Your task to perform on an android device: Open Android settings Image 0: 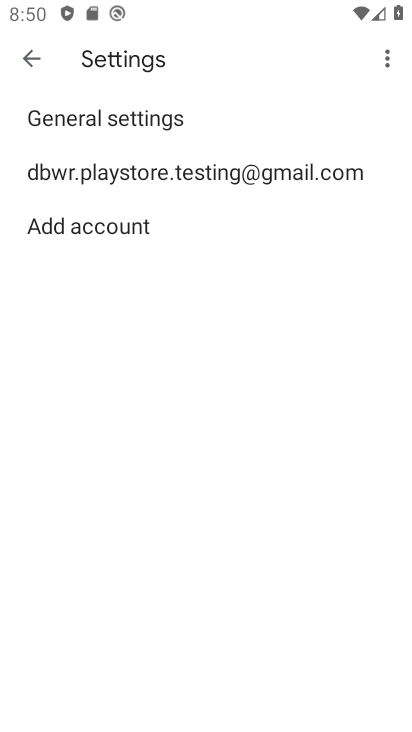
Step 0: press home button
Your task to perform on an android device: Open Android settings Image 1: 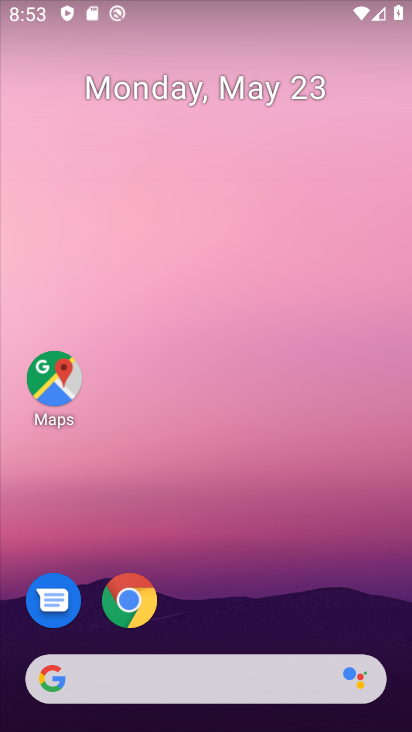
Step 1: drag from (369, 688) to (300, 8)
Your task to perform on an android device: Open Android settings Image 2: 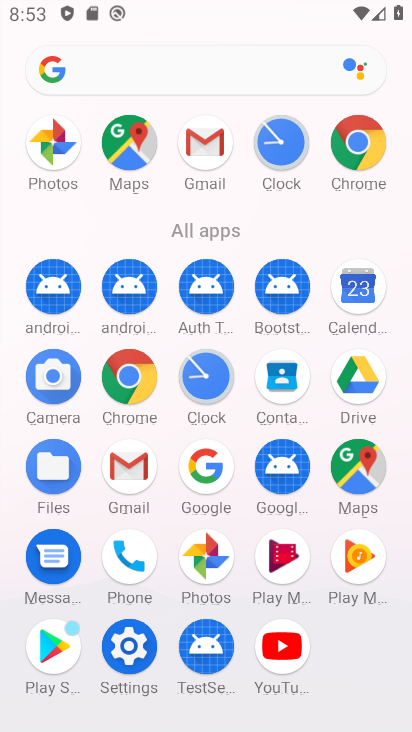
Step 2: click (125, 655)
Your task to perform on an android device: Open Android settings Image 3: 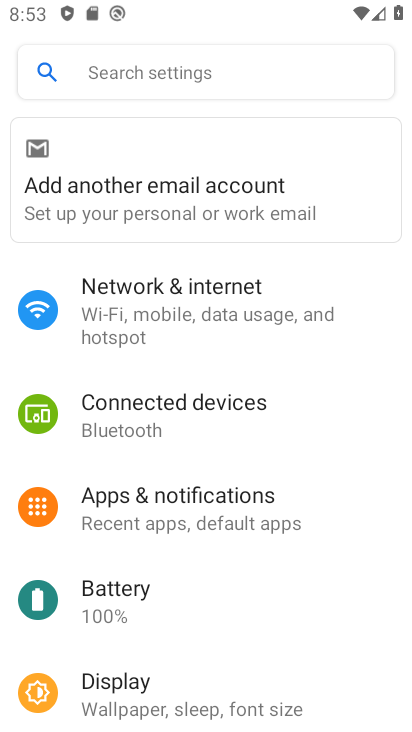
Step 3: drag from (176, 665) to (210, 35)
Your task to perform on an android device: Open Android settings Image 4: 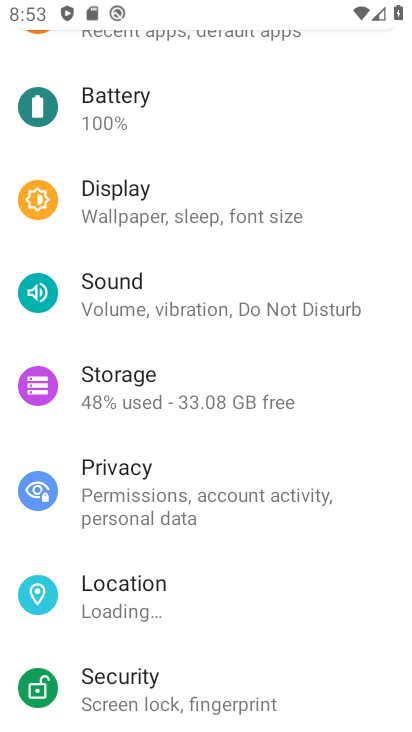
Step 4: drag from (145, 725) to (188, 299)
Your task to perform on an android device: Open Android settings Image 5: 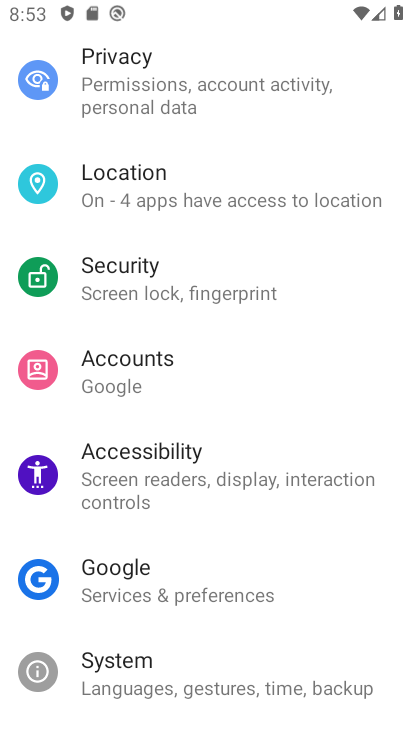
Step 5: click (290, 670)
Your task to perform on an android device: Open Android settings Image 6: 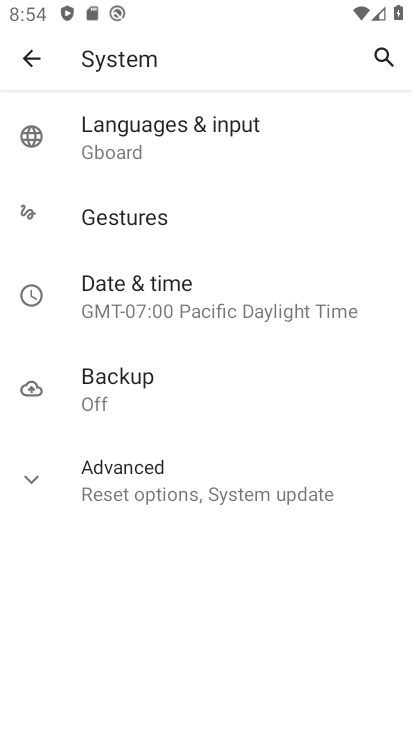
Step 6: press home button
Your task to perform on an android device: Open Android settings Image 7: 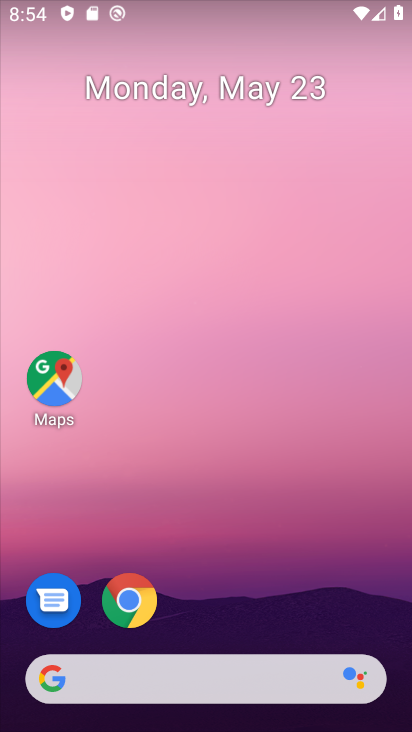
Step 7: drag from (209, 621) to (188, 5)
Your task to perform on an android device: Open Android settings Image 8: 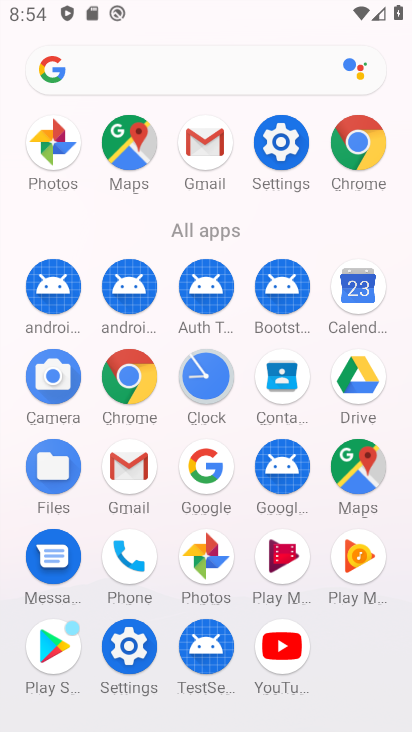
Step 8: click (137, 653)
Your task to perform on an android device: Open Android settings Image 9: 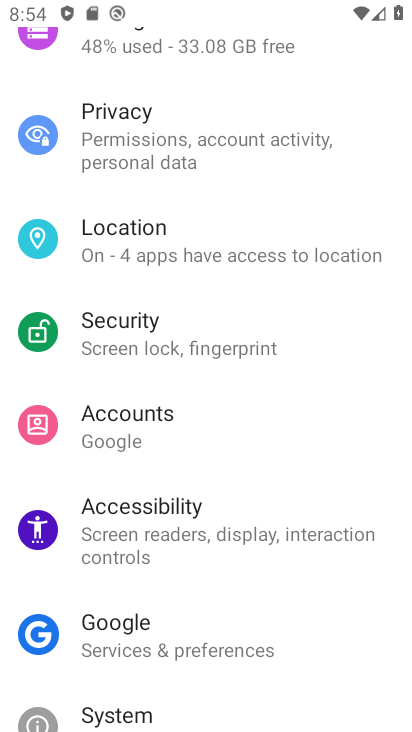
Step 9: click (102, 633)
Your task to perform on an android device: Open Android settings Image 10: 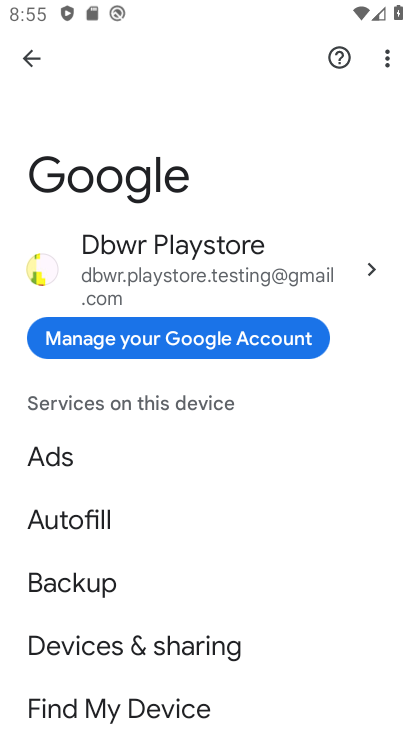
Step 10: press home button
Your task to perform on an android device: Open Android settings Image 11: 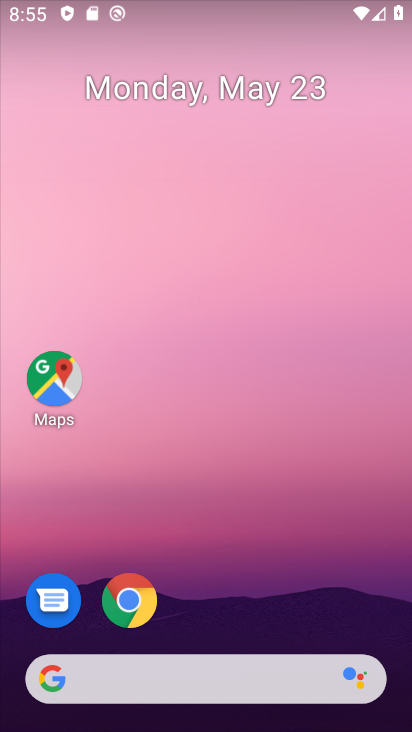
Step 11: drag from (279, 665) to (378, 0)
Your task to perform on an android device: Open Android settings Image 12: 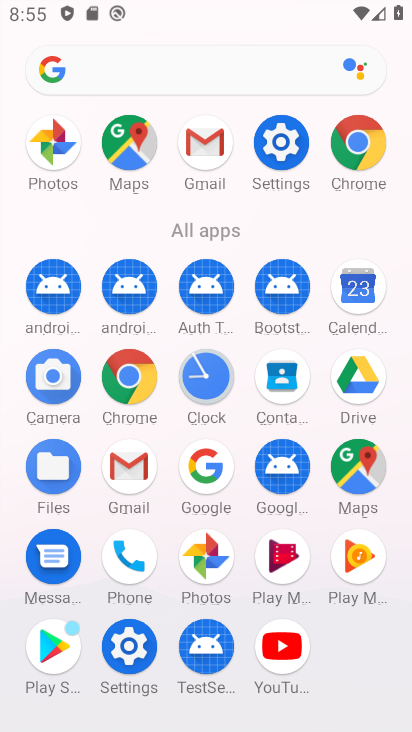
Step 12: click (275, 164)
Your task to perform on an android device: Open Android settings Image 13: 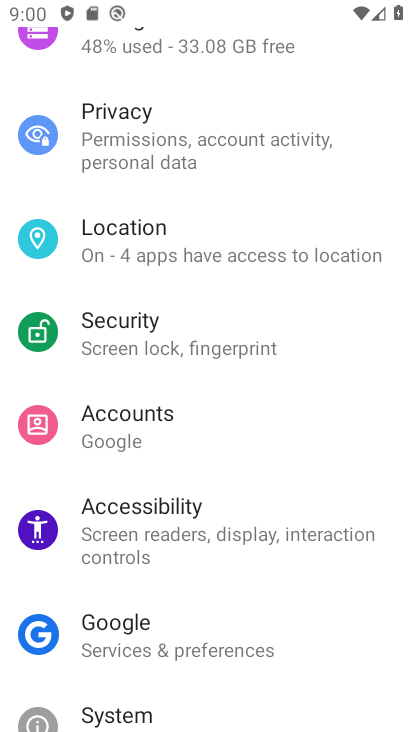
Step 13: press home button
Your task to perform on an android device: Open Android settings Image 14: 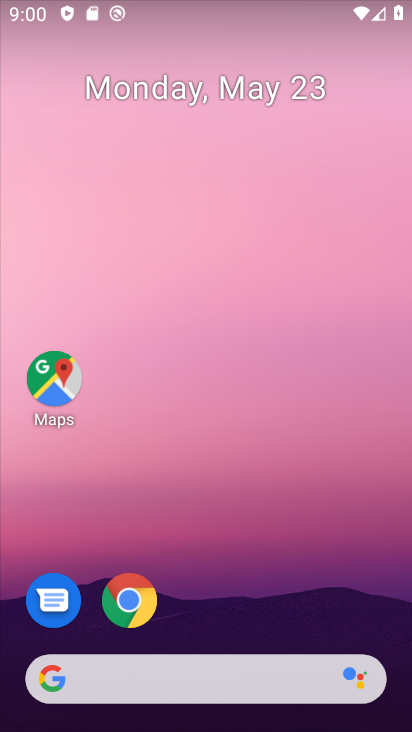
Step 14: drag from (365, 682) to (245, 0)
Your task to perform on an android device: Open Android settings Image 15: 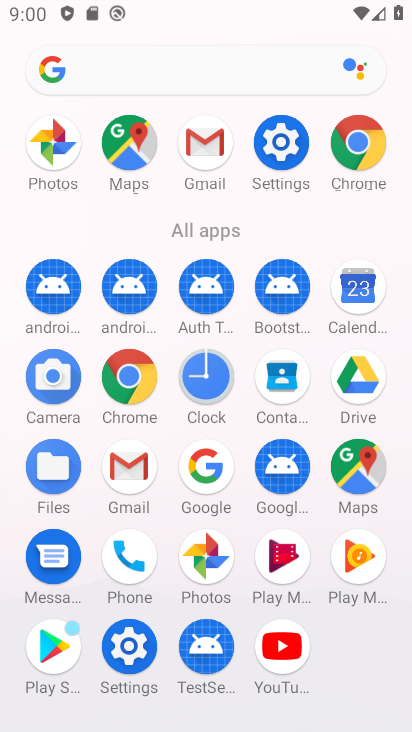
Step 15: click (294, 138)
Your task to perform on an android device: Open Android settings Image 16: 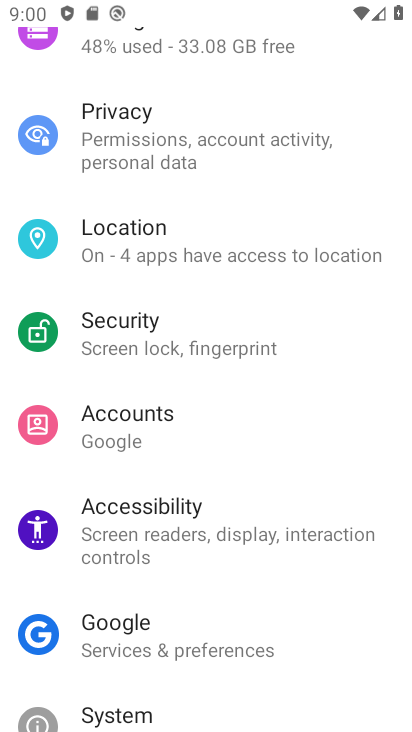
Step 16: drag from (220, 635) to (301, 188)
Your task to perform on an android device: Open Android settings Image 17: 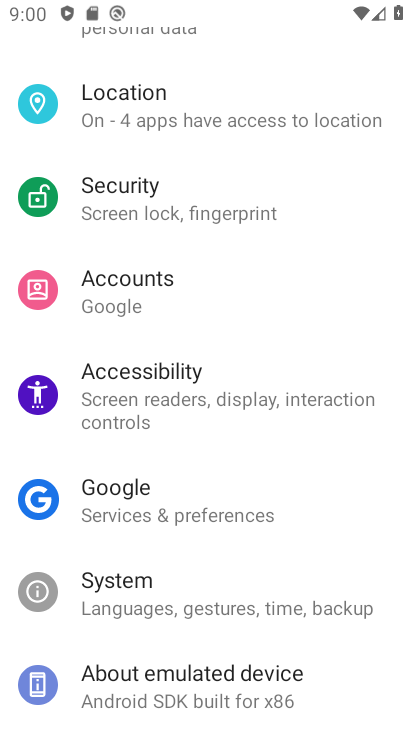
Step 17: drag from (221, 470) to (236, 324)
Your task to perform on an android device: Open Android settings Image 18: 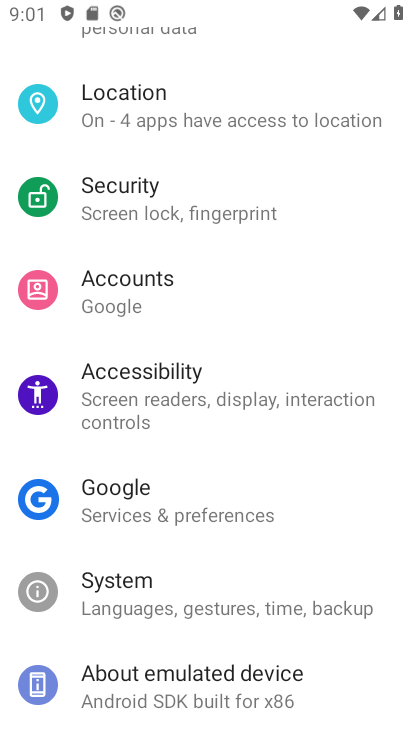
Step 18: drag from (239, 716) to (250, 465)
Your task to perform on an android device: Open Android settings Image 19: 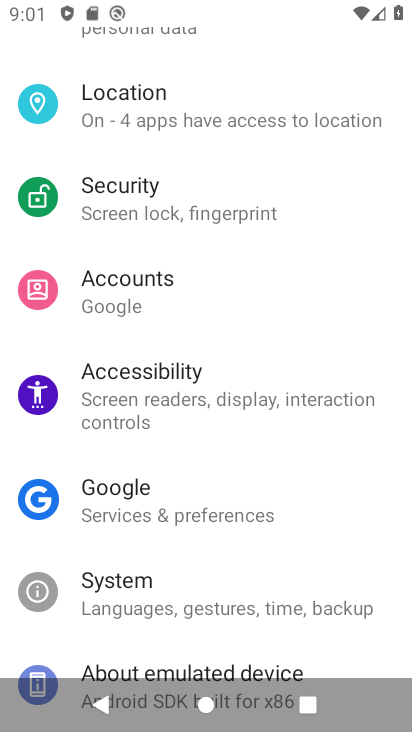
Step 19: click (191, 672)
Your task to perform on an android device: Open Android settings Image 20: 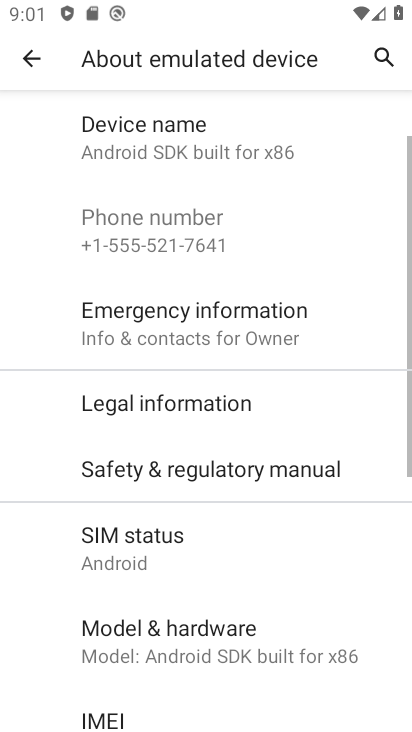
Step 20: drag from (201, 696) to (263, 181)
Your task to perform on an android device: Open Android settings Image 21: 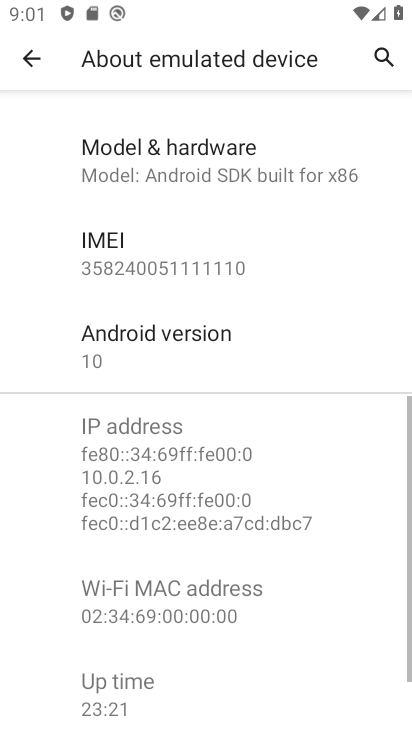
Step 21: click (175, 359)
Your task to perform on an android device: Open Android settings Image 22: 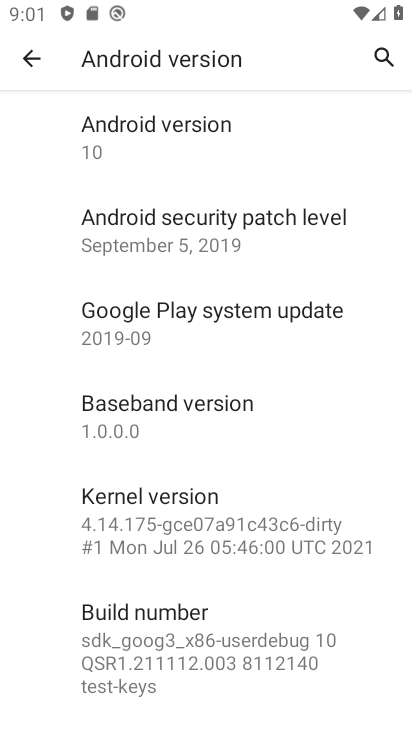
Step 22: task complete